Your task to perform on an android device: turn off notifications in google photos Image 0: 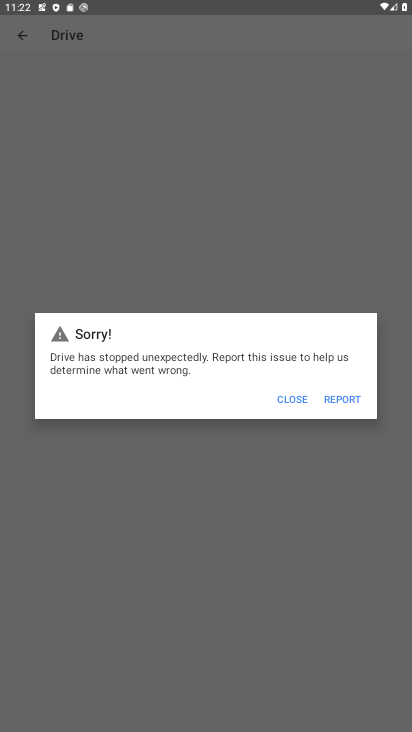
Step 0: press home button
Your task to perform on an android device: turn off notifications in google photos Image 1: 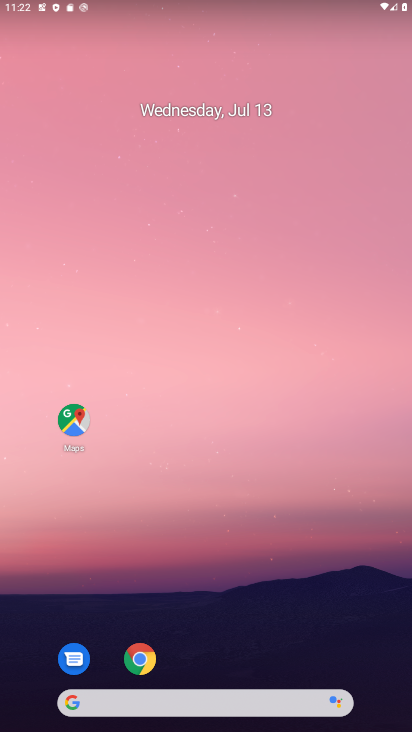
Step 1: drag from (273, 648) to (202, 163)
Your task to perform on an android device: turn off notifications in google photos Image 2: 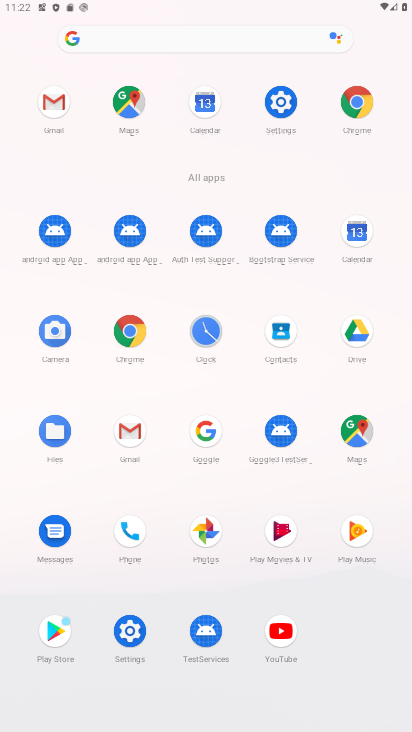
Step 2: click (207, 525)
Your task to perform on an android device: turn off notifications in google photos Image 3: 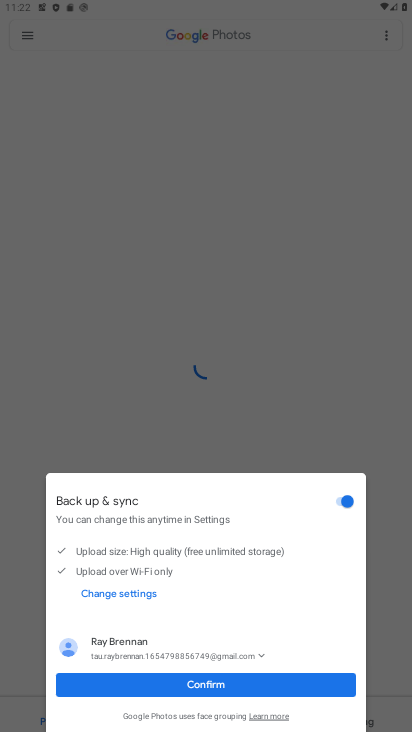
Step 3: click (246, 686)
Your task to perform on an android device: turn off notifications in google photos Image 4: 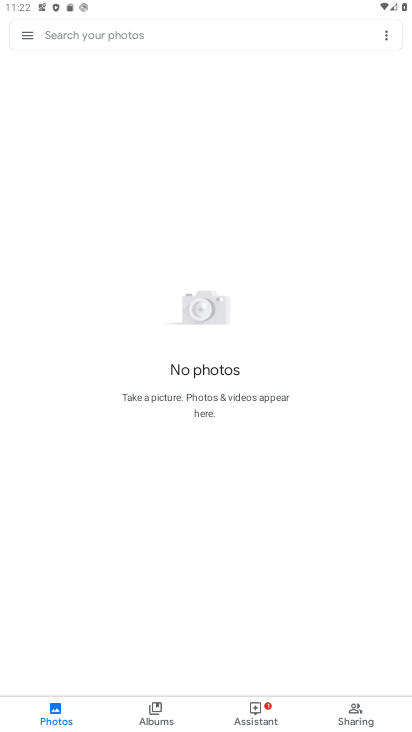
Step 4: click (25, 38)
Your task to perform on an android device: turn off notifications in google photos Image 5: 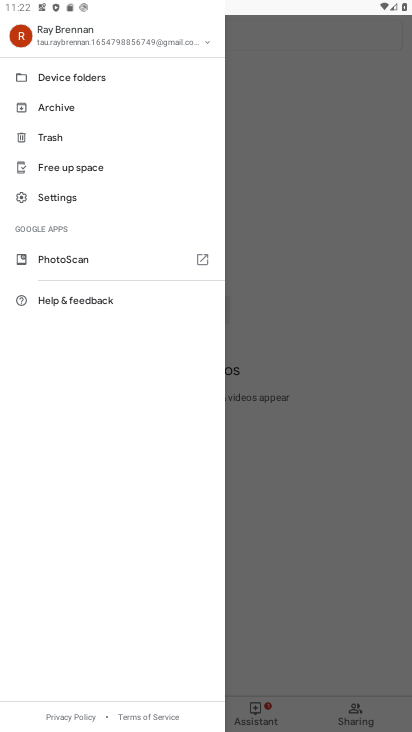
Step 5: click (82, 201)
Your task to perform on an android device: turn off notifications in google photos Image 6: 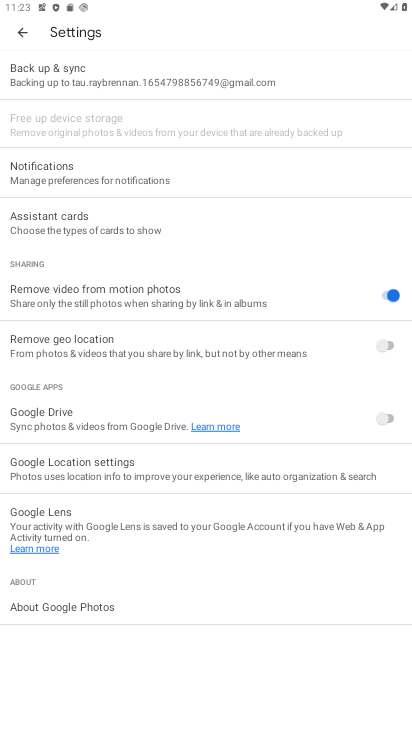
Step 6: click (170, 170)
Your task to perform on an android device: turn off notifications in google photos Image 7: 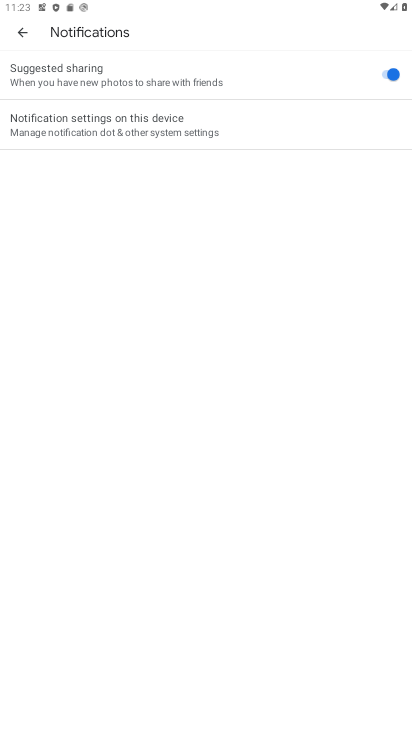
Step 7: click (272, 132)
Your task to perform on an android device: turn off notifications in google photos Image 8: 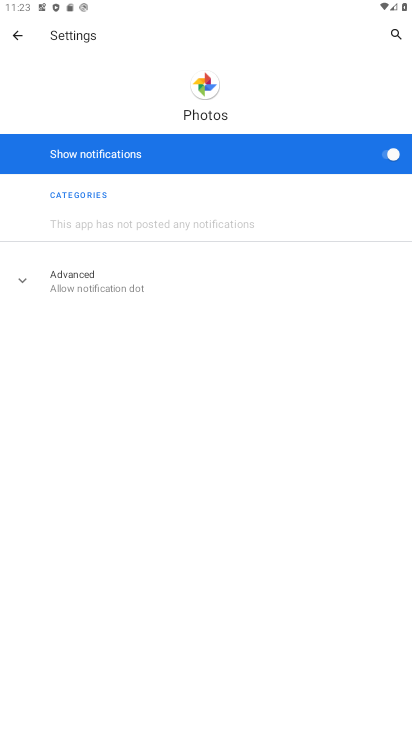
Step 8: click (386, 151)
Your task to perform on an android device: turn off notifications in google photos Image 9: 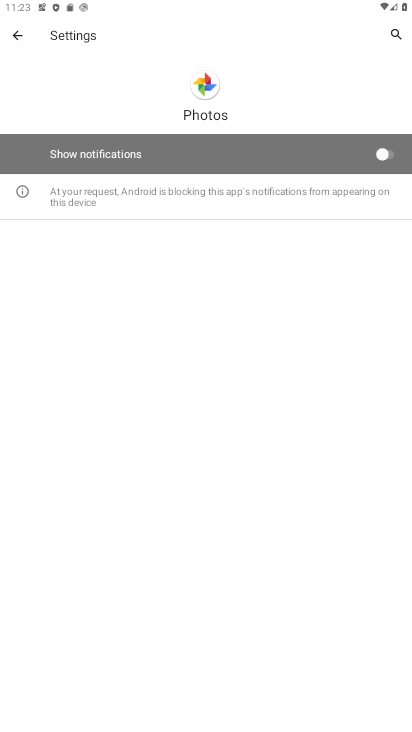
Step 9: task complete